Your task to perform on an android device: toggle notification dots Image 0: 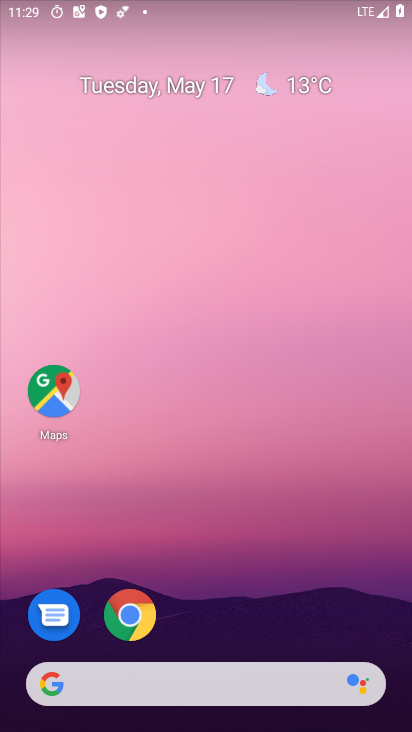
Step 0: press home button
Your task to perform on an android device: toggle notification dots Image 1: 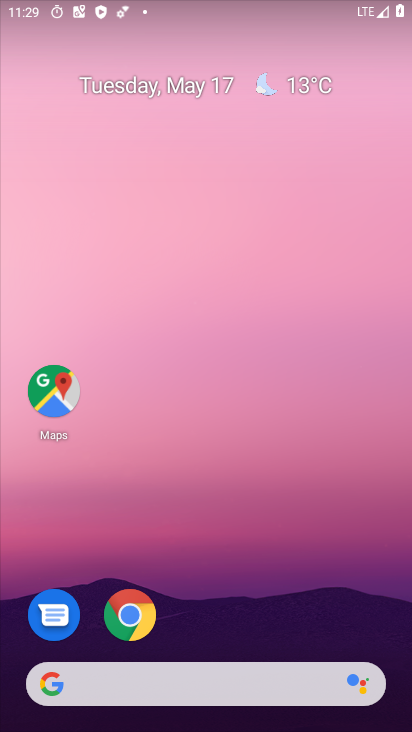
Step 1: drag from (161, 689) to (275, 218)
Your task to perform on an android device: toggle notification dots Image 2: 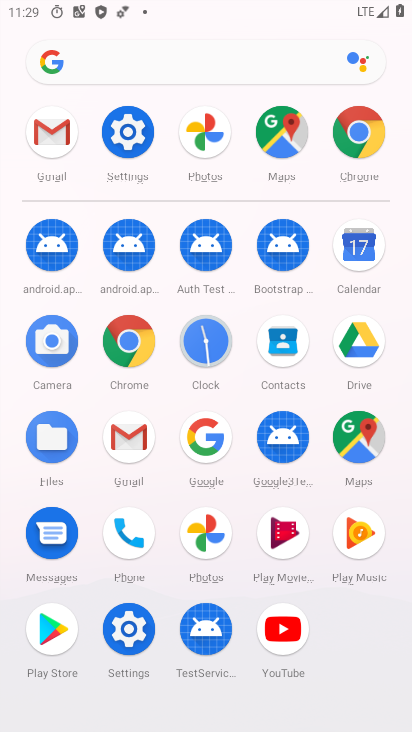
Step 2: click (126, 141)
Your task to perform on an android device: toggle notification dots Image 3: 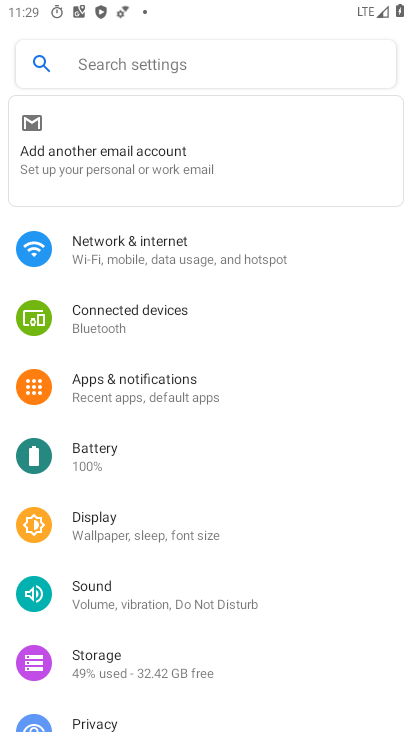
Step 3: click (155, 395)
Your task to perform on an android device: toggle notification dots Image 4: 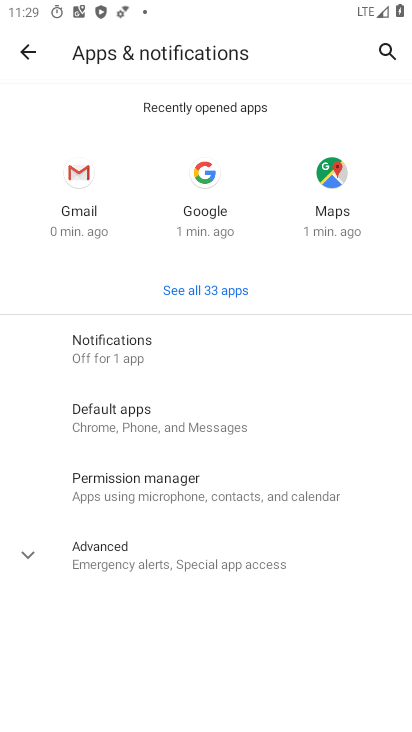
Step 4: click (130, 350)
Your task to perform on an android device: toggle notification dots Image 5: 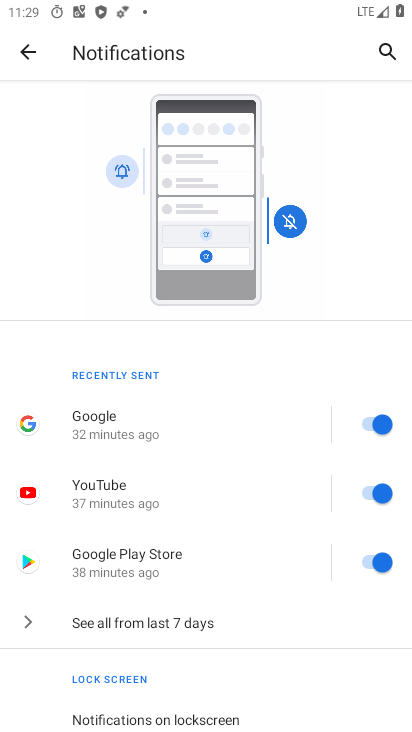
Step 5: drag from (228, 604) to (378, 236)
Your task to perform on an android device: toggle notification dots Image 6: 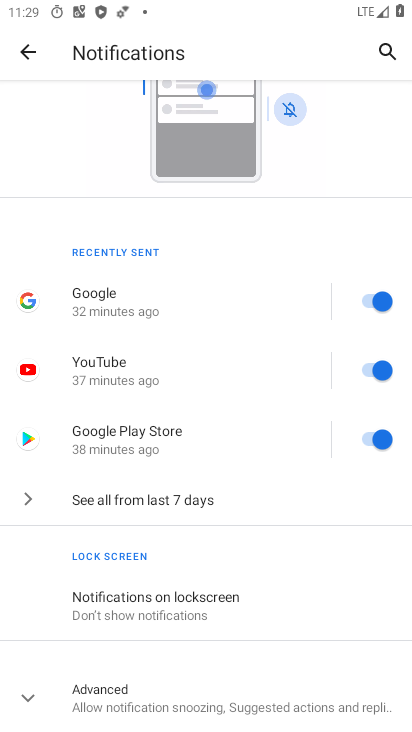
Step 6: click (165, 684)
Your task to perform on an android device: toggle notification dots Image 7: 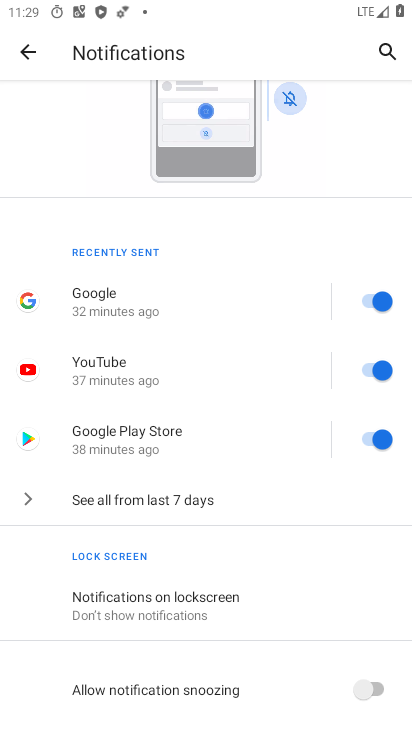
Step 7: drag from (243, 628) to (302, 344)
Your task to perform on an android device: toggle notification dots Image 8: 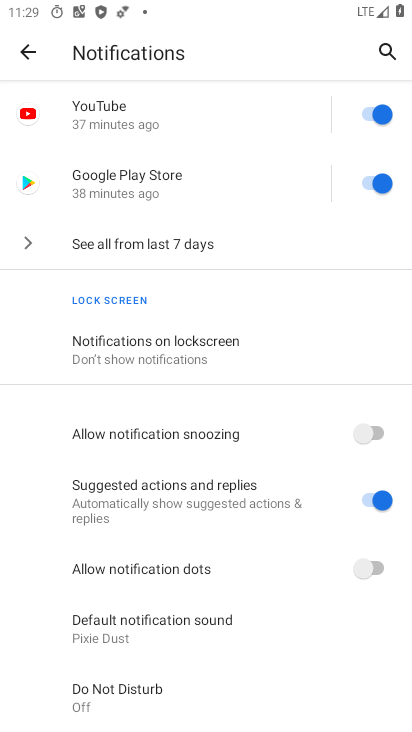
Step 8: click (380, 559)
Your task to perform on an android device: toggle notification dots Image 9: 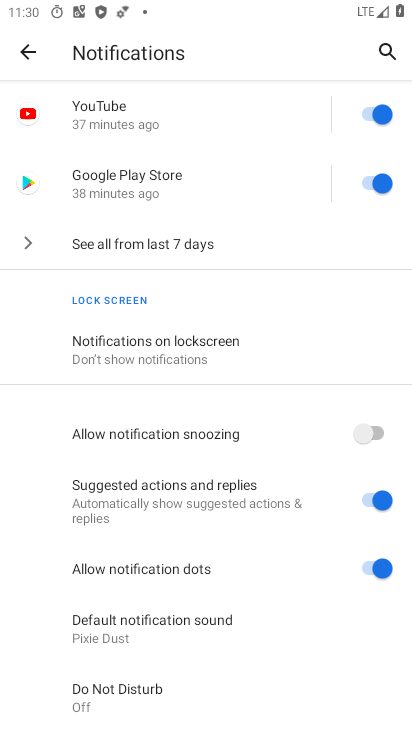
Step 9: task complete